Your task to perform on an android device: turn vacation reply on in the gmail app Image 0: 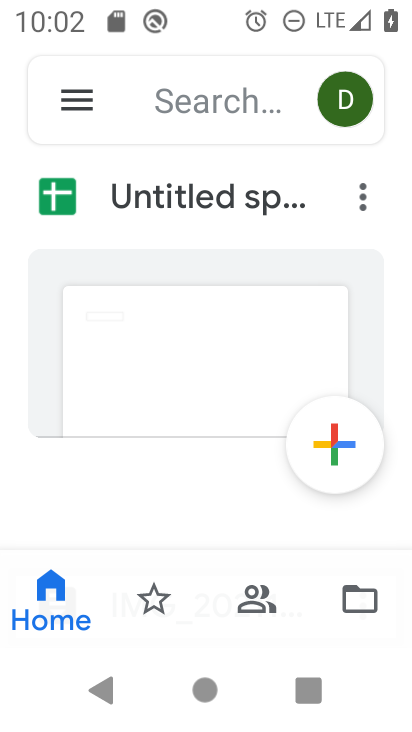
Step 0: press home button
Your task to perform on an android device: turn vacation reply on in the gmail app Image 1: 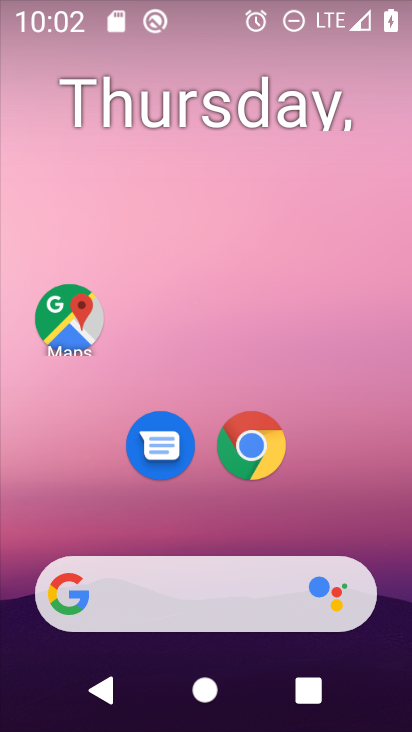
Step 1: drag from (386, 622) to (333, 51)
Your task to perform on an android device: turn vacation reply on in the gmail app Image 2: 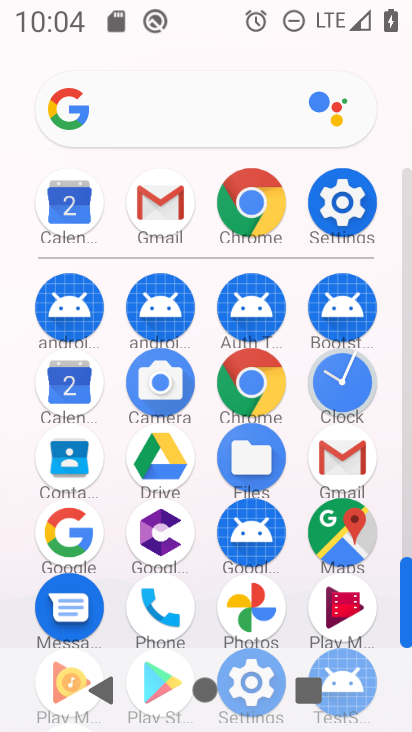
Step 2: click (346, 466)
Your task to perform on an android device: turn vacation reply on in the gmail app Image 3: 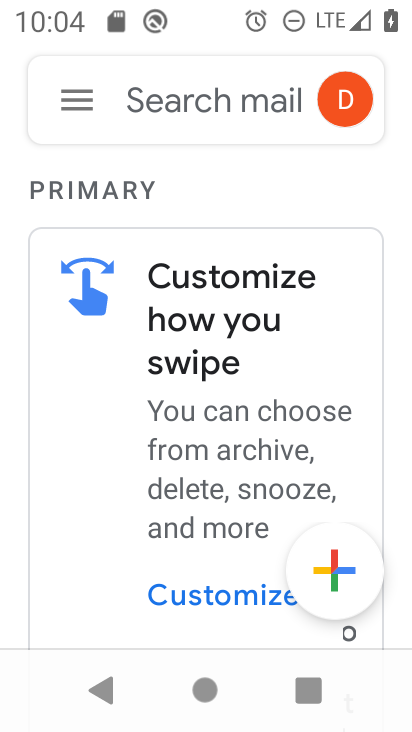
Step 3: click (66, 101)
Your task to perform on an android device: turn vacation reply on in the gmail app Image 4: 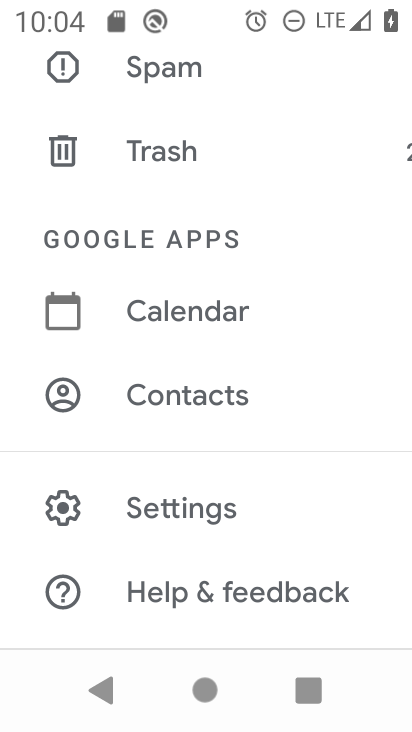
Step 4: click (194, 503)
Your task to perform on an android device: turn vacation reply on in the gmail app Image 5: 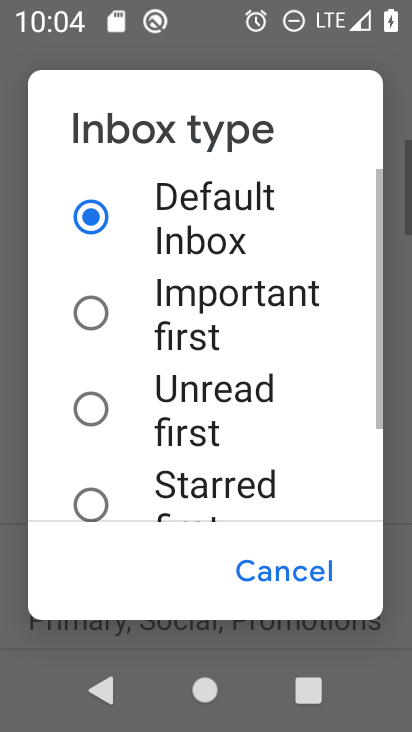
Step 5: click (271, 575)
Your task to perform on an android device: turn vacation reply on in the gmail app Image 6: 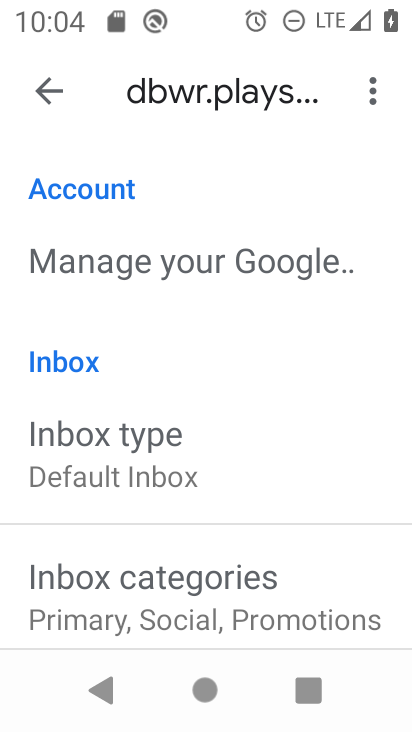
Step 6: drag from (206, 615) to (265, 138)
Your task to perform on an android device: turn vacation reply on in the gmail app Image 7: 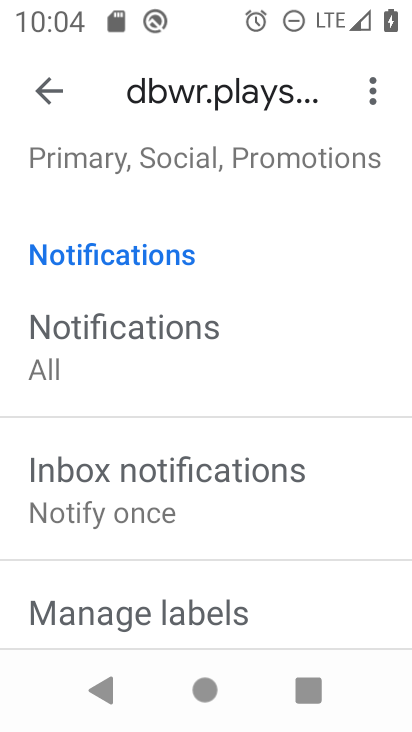
Step 7: drag from (193, 591) to (248, 114)
Your task to perform on an android device: turn vacation reply on in the gmail app Image 8: 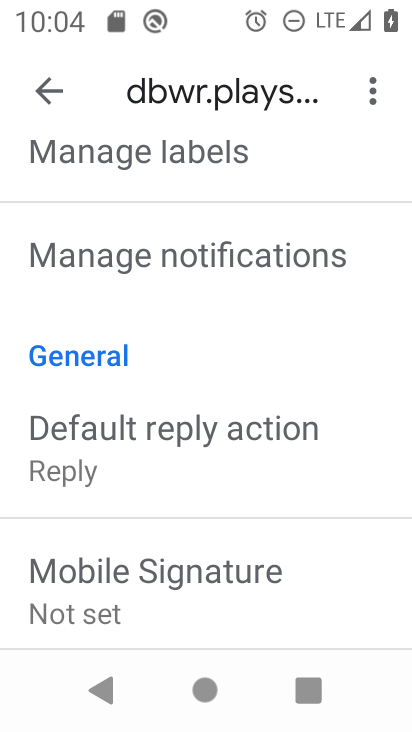
Step 8: click (261, 152)
Your task to perform on an android device: turn vacation reply on in the gmail app Image 9: 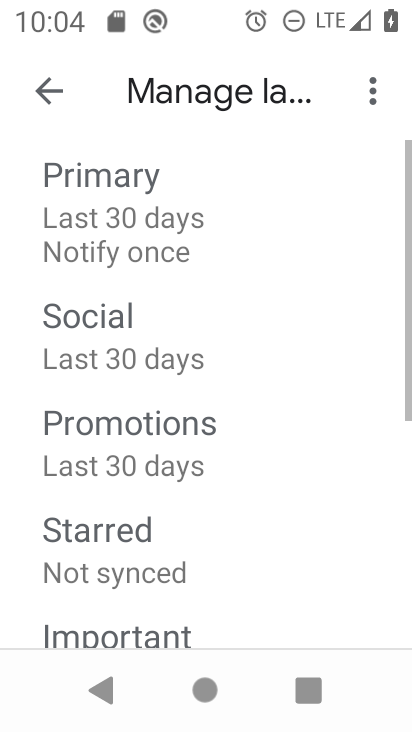
Step 9: drag from (189, 534) to (190, 226)
Your task to perform on an android device: turn vacation reply on in the gmail app Image 10: 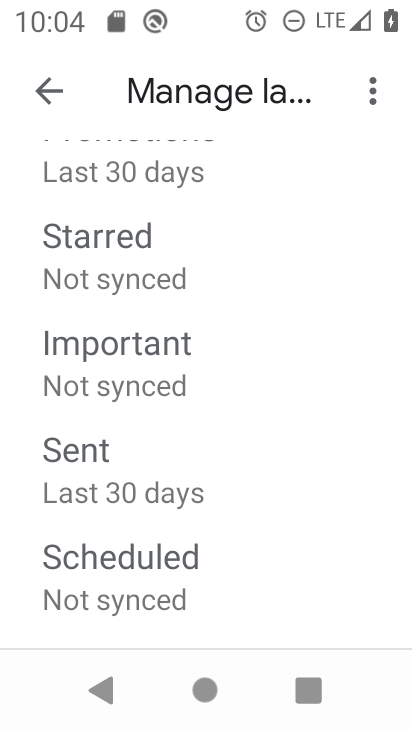
Step 10: press back button
Your task to perform on an android device: turn vacation reply on in the gmail app Image 11: 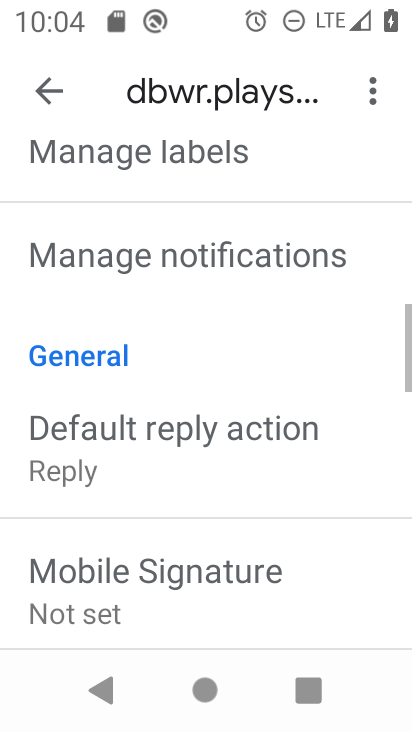
Step 11: drag from (247, 620) to (242, 119)
Your task to perform on an android device: turn vacation reply on in the gmail app Image 12: 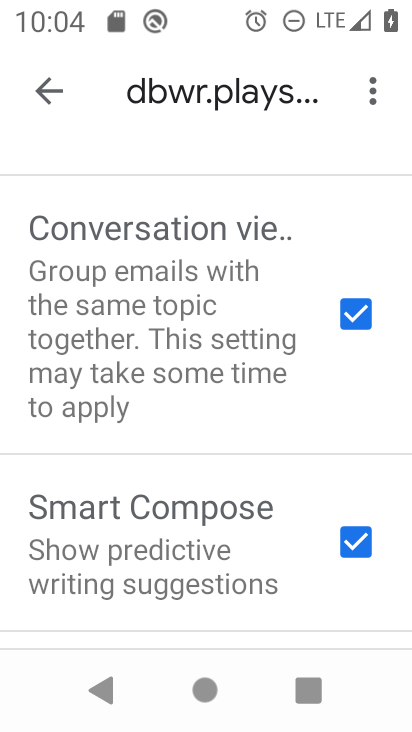
Step 12: drag from (167, 575) to (152, 48)
Your task to perform on an android device: turn vacation reply on in the gmail app Image 13: 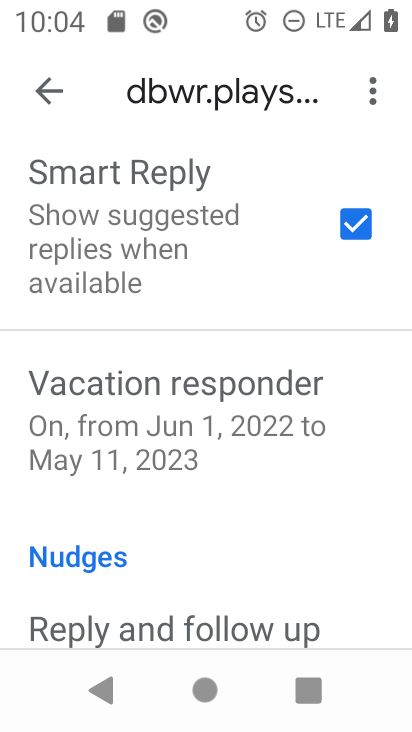
Step 13: click (237, 401)
Your task to perform on an android device: turn vacation reply on in the gmail app Image 14: 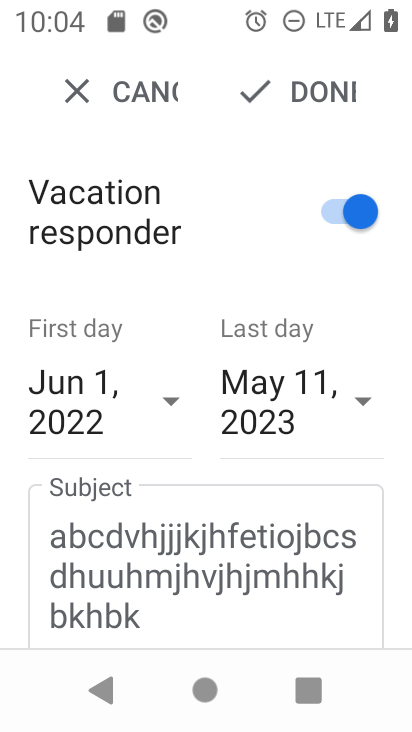
Step 14: task complete